Your task to perform on an android device: move an email to a new category in the gmail app Image 0: 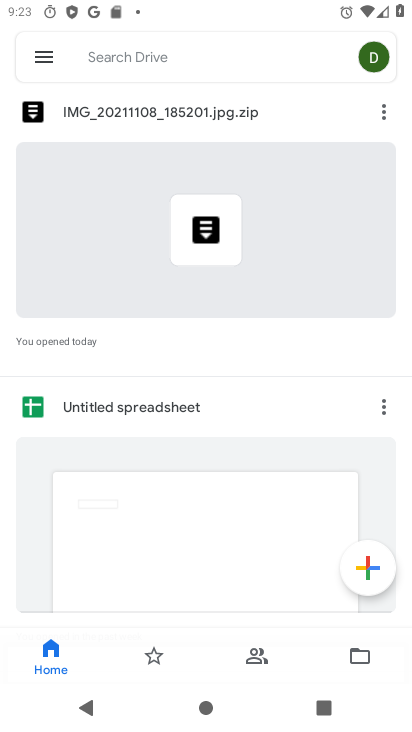
Step 0: press home button
Your task to perform on an android device: move an email to a new category in the gmail app Image 1: 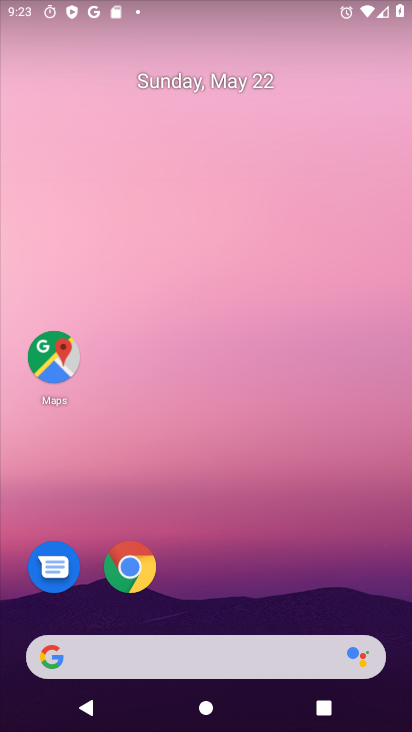
Step 1: drag from (204, 595) to (241, 71)
Your task to perform on an android device: move an email to a new category in the gmail app Image 2: 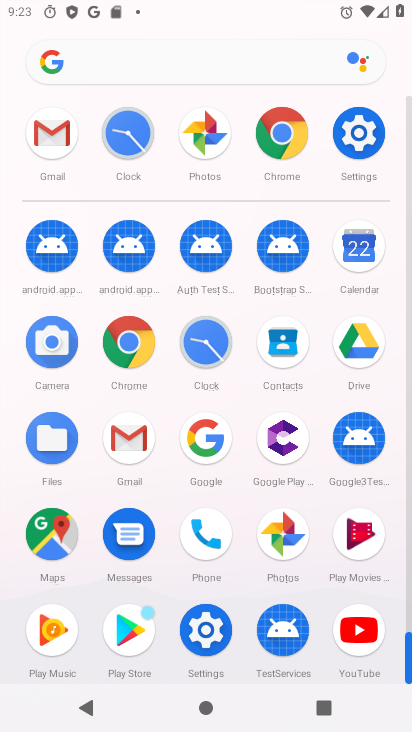
Step 2: click (120, 448)
Your task to perform on an android device: move an email to a new category in the gmail app Image 3: 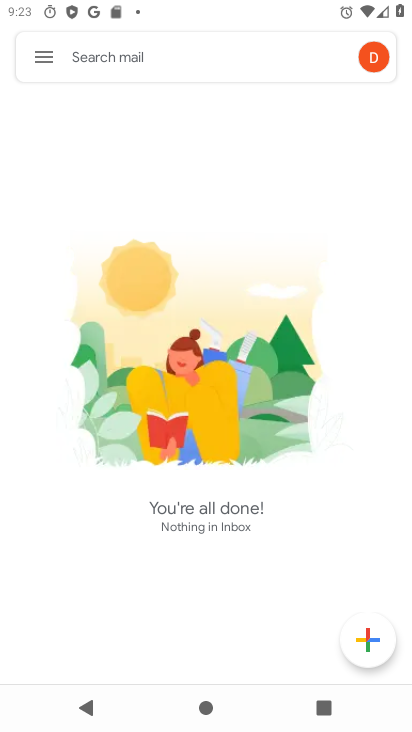
Step 3: click (40, 58)
Your task to perform on an android device: move an email to a new category in the gmail app Image 4: 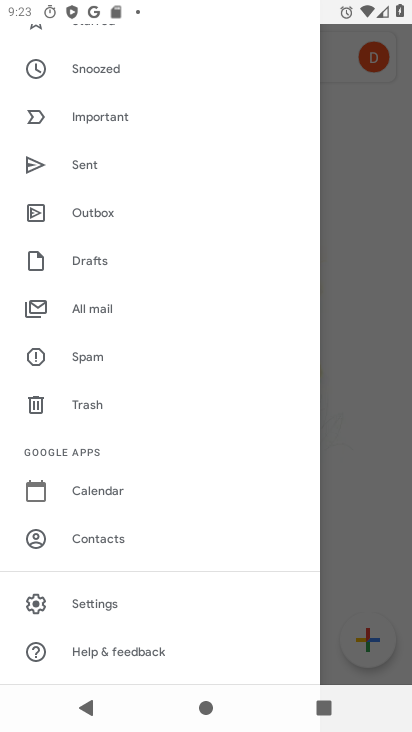
Step 4: click (92, 301)
Your task to perform on an android device: move an email to a new category in the gmail app Image 5: 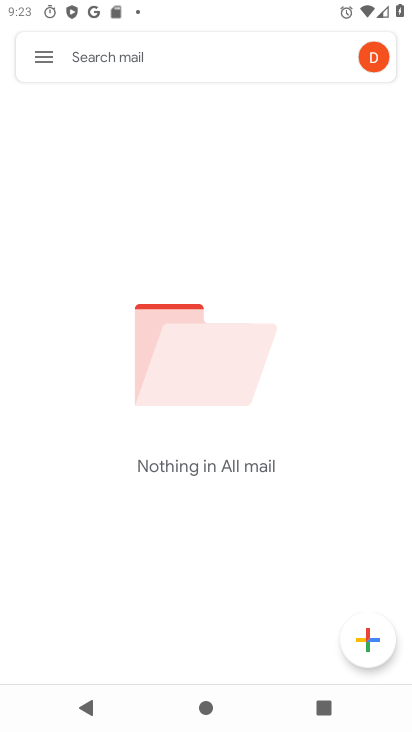
Step 5: task complete